Your task to perform on an android device: Do I have any events today? Image 0: 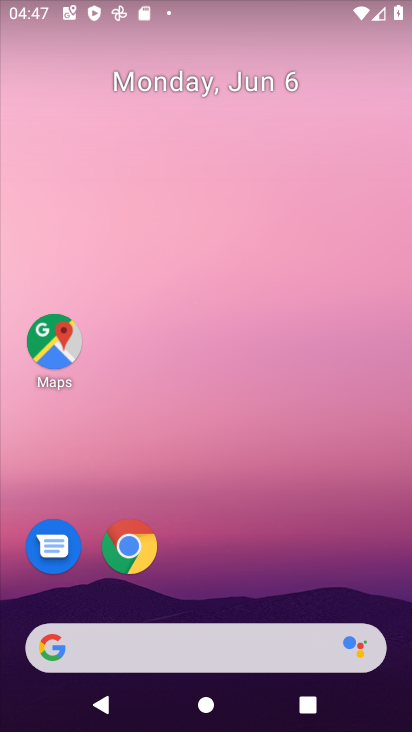
Step 0: task complete